Your task to perform on an android device: Add "logitech g933" to the cart on ebay.com Image 0: 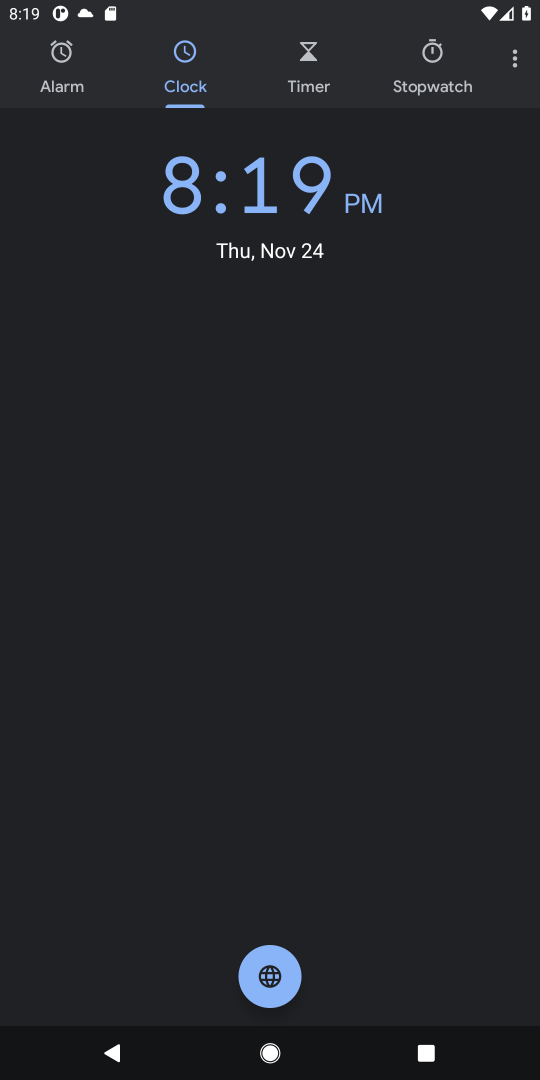
Step 0: press home button
Your task to perform on an android device: Add "logitech g933" to the cart on ebay.com Image 1: 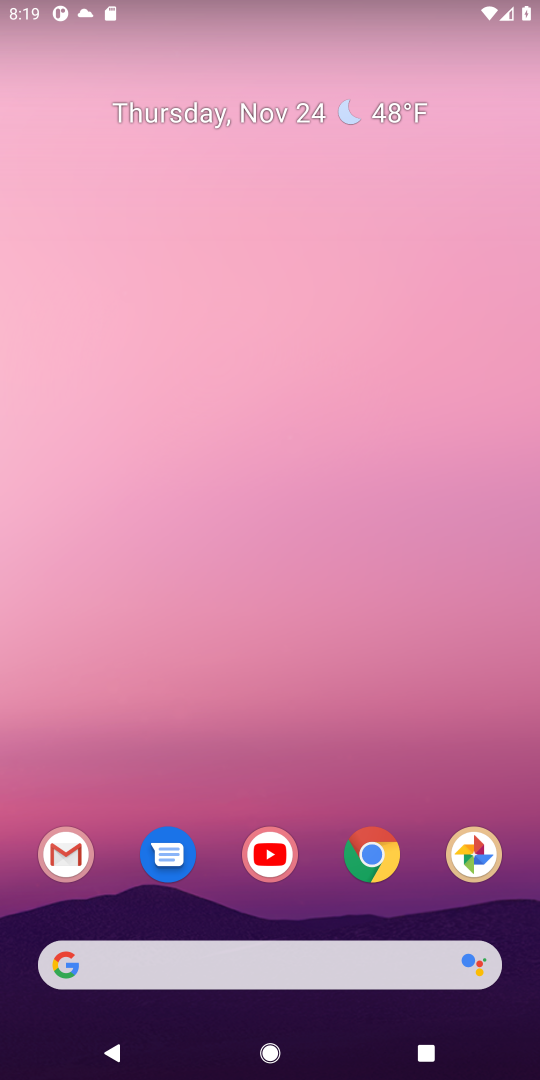
Step 1: click (369, 863)
Your task to perform on an android device: Add "logitech g933" to the cart on ebay.com Image 2: 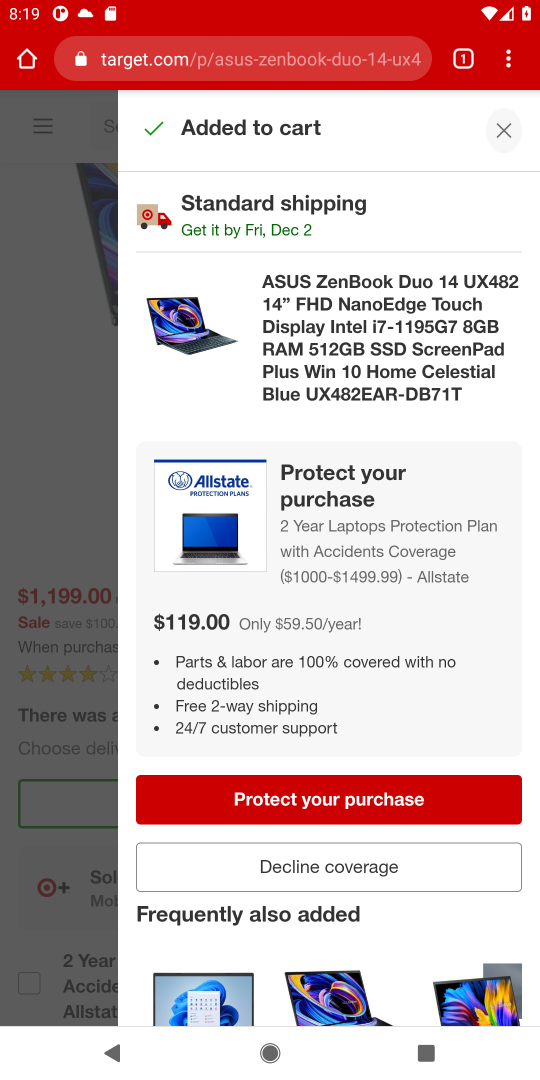
Step 2: click (217, 67)
Your task to perform on an android device: Add "logitech g933" to the cart on ebay.com Image 3: 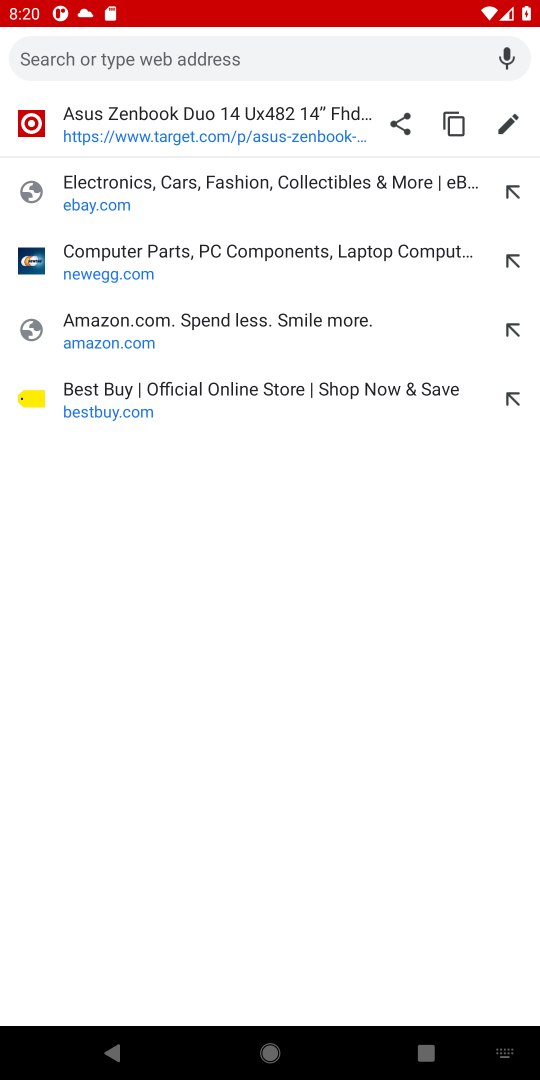
Step 3: click (71, 200)
Your task to perform on an android device: Add "logitech g933" to the cart on ebay.com Image 4: 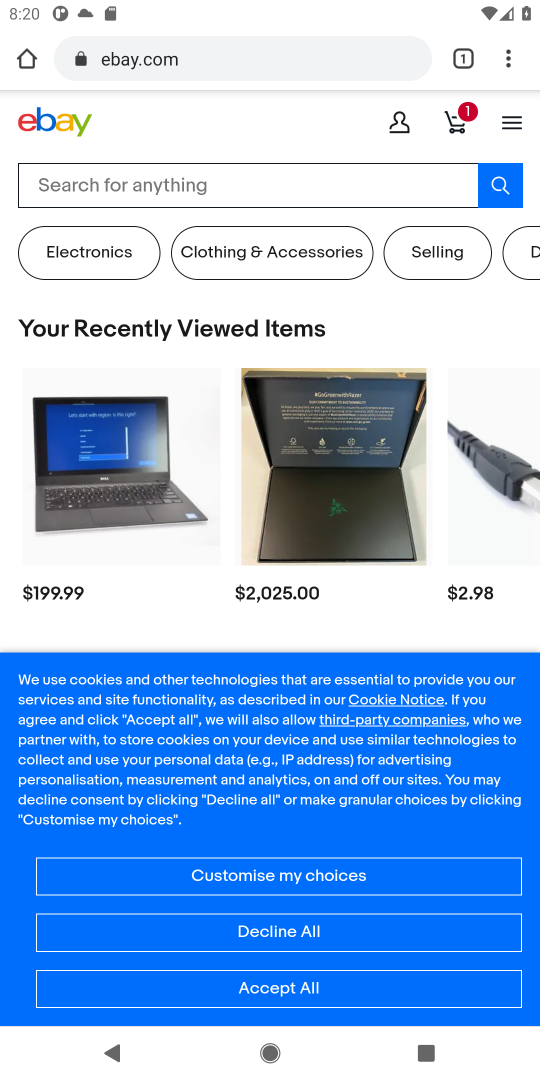
Step 4: click (139, 190)
Your task to perform on an android device: Add "logitech g933" to the cart on ebay.com Image 5: 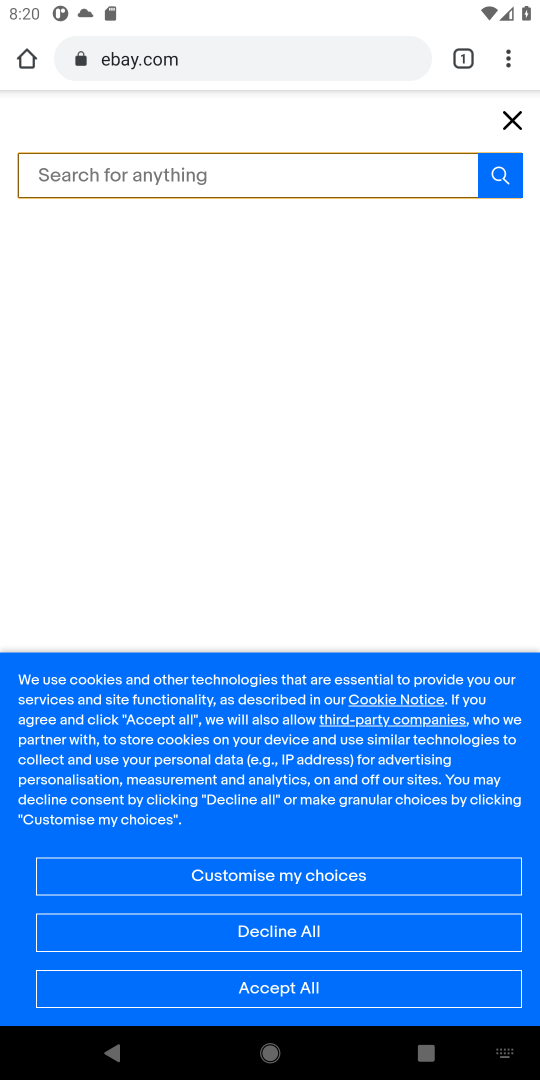
Step 5: type "logitech g933"
Your task to perform on an android device: Add "logitech g933" to the cart on ebay.com Image 6: 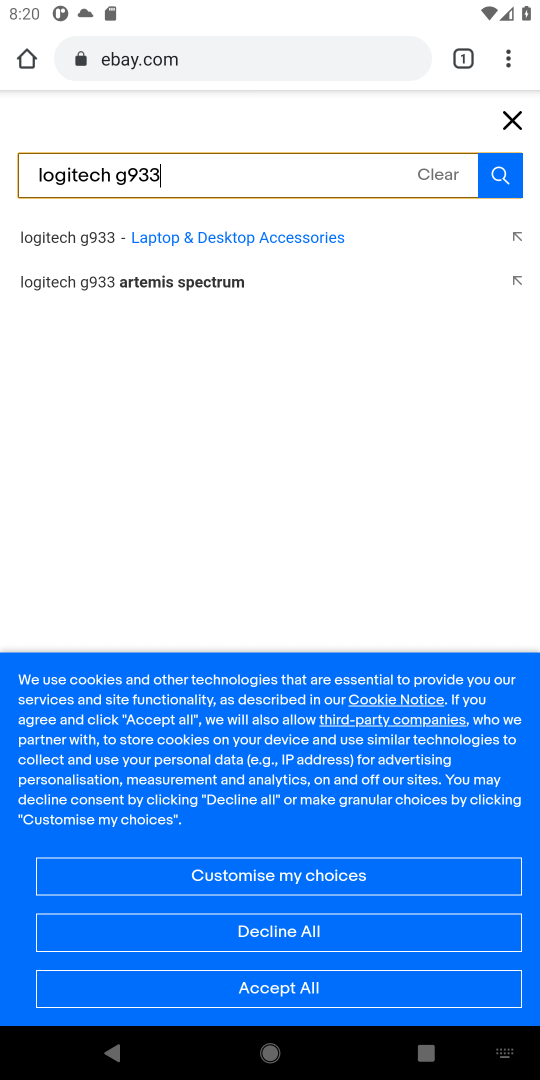
Step 6: click (498, 177)
Your task to perform on an android device: Add "logitech g933" to the cart on ebay.com Image 7: 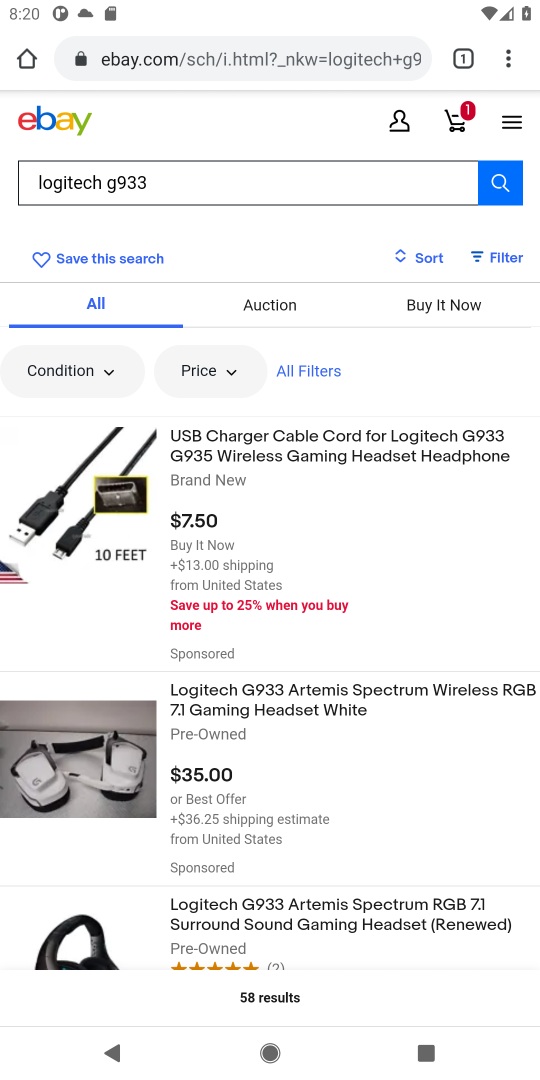
Step 7: click (498, 177)
Your task to perform on an android device: Add "logitech g933" to the cart on ebay.com Image 8: 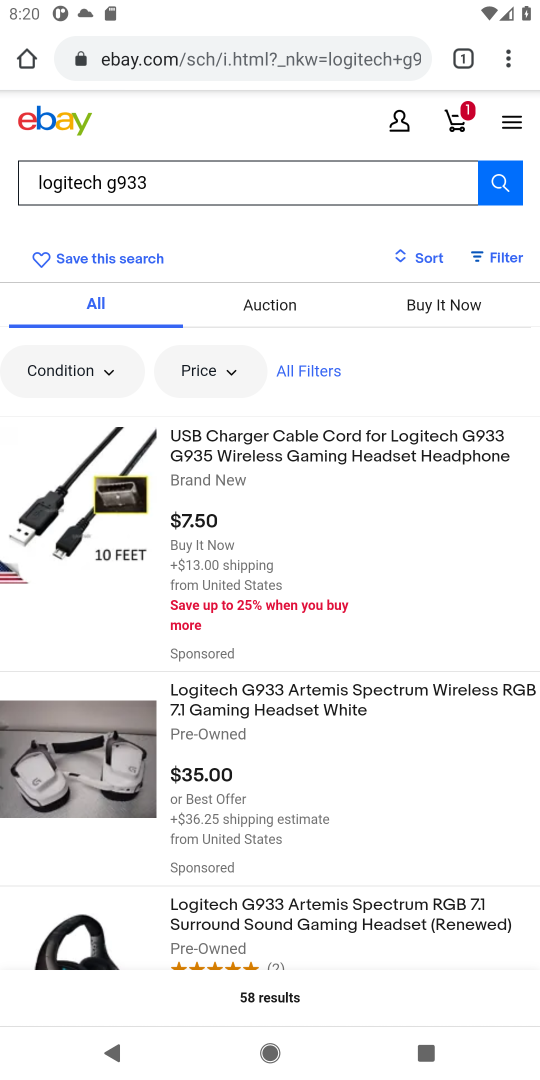
Step 8: click (118, 578)
Your task to perform on an android device: Add "logitech g933" to the cart on ebay.com Image 9: 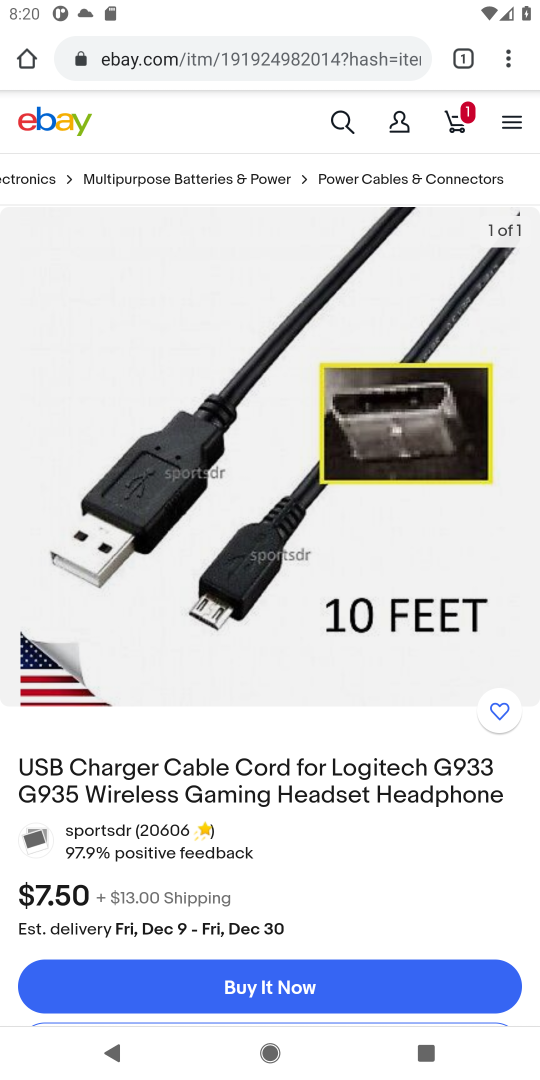
Step 9: drag from (273, 817) to (284, 443)
Your task to perform on an android device: Add "logitech g933" to the cart on ebay.com Image 10: 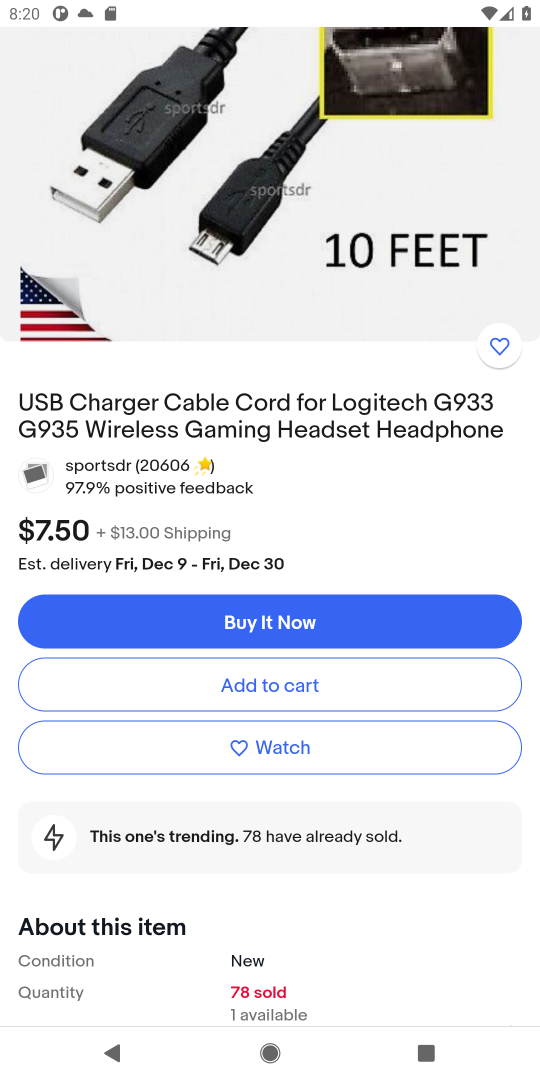
Step 10: click (246, 679)
Your task to perform on an android device: Add "logitech g933" to the cart on ebay.com Image 11: 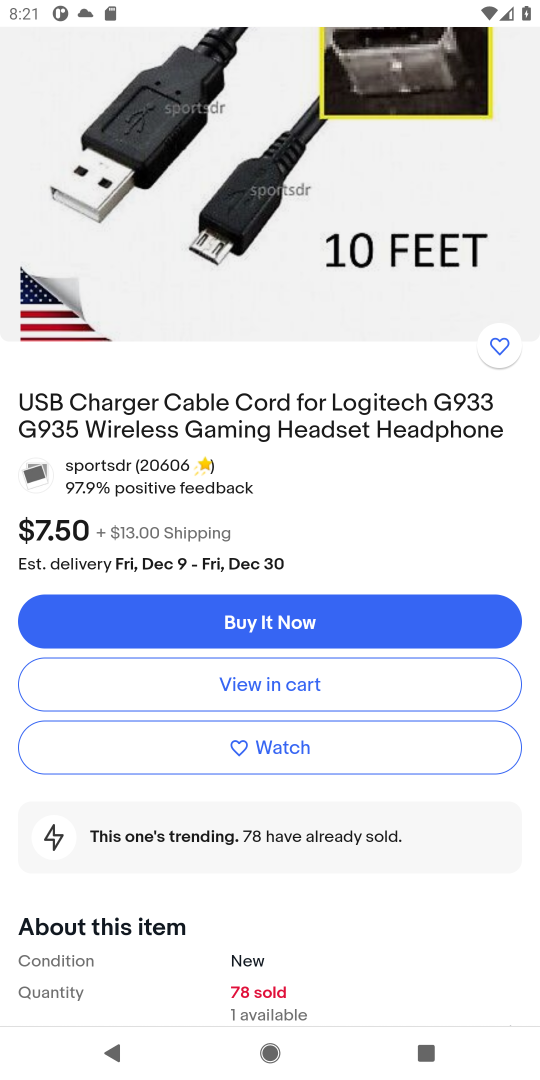
Step 11: task complete